Your task to perform on an android device: change the clock display to show seconds Image 0: 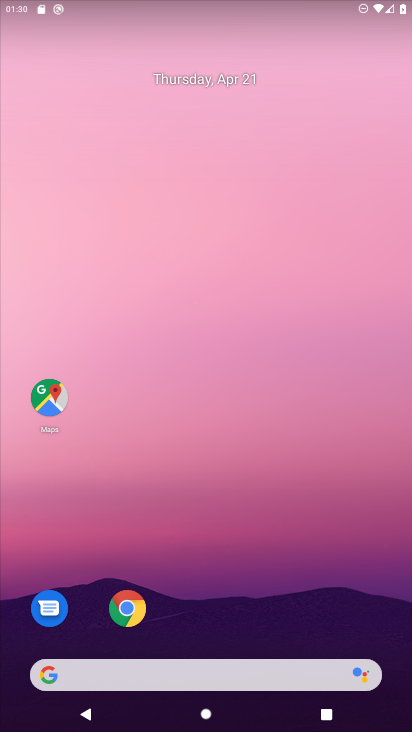
Step 0: drag from (220, 602) to (269, 226)
Your task to perform on an android device: change the clock display to show seconds Image 1: 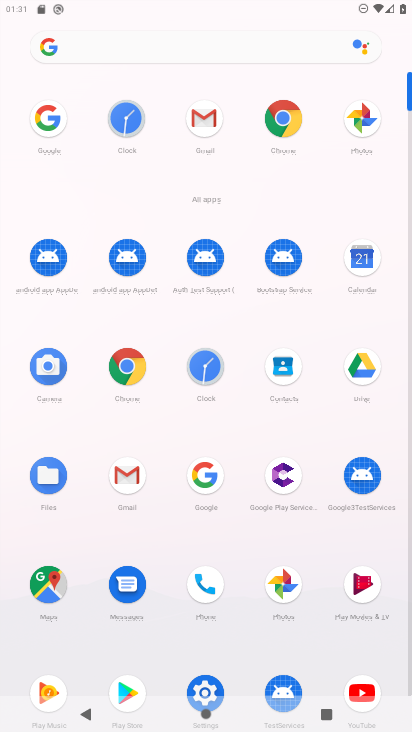
Step 1: click (197, 355)
Your task to perform on an android device: change the clock display to show seconds Image 2: 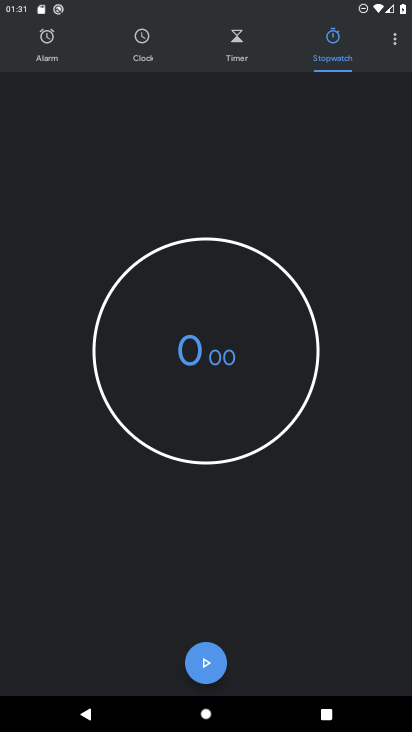
Step 2: click (396, 45)
Your task to perform on an android device: change the clock display to show seconds Image 3: 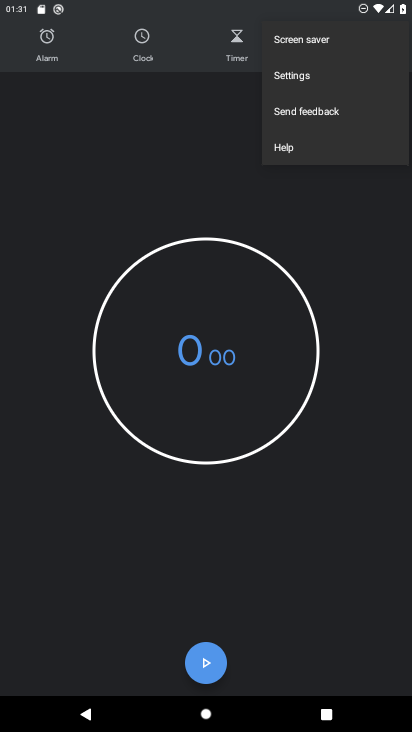
Step 3: click (330, 80)
Your task to perform on an android device: change the clock display to show seconds Image 4: 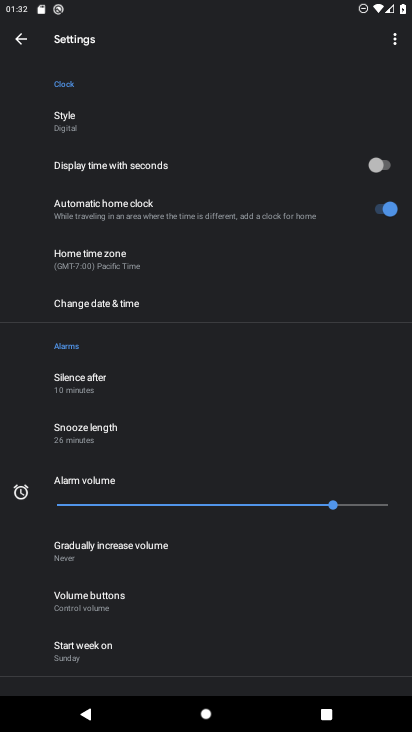
Step 4: click (378, 161)
Your task to perform on an android device: change the clock display to show seconds Image 5: 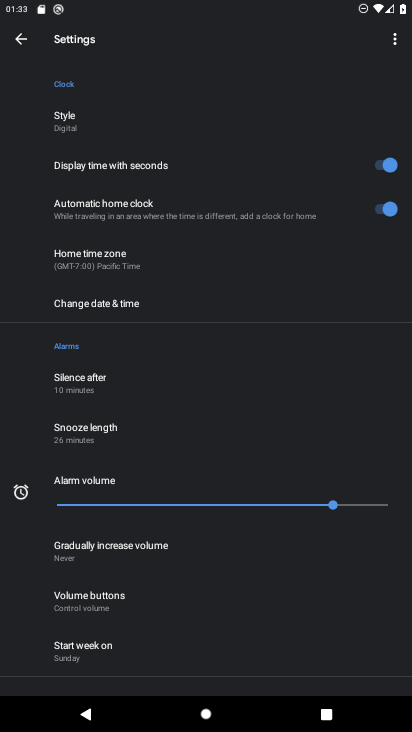
Step 5: task complete